Your task to perform on an android device: Go to Yahoo.com Image 0: 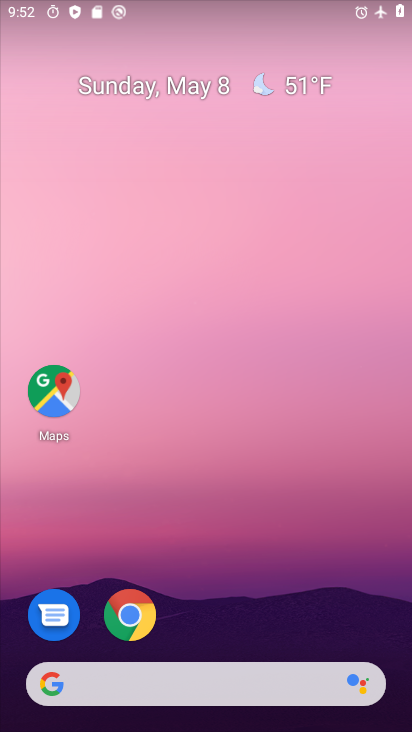
Step 0: click (130, 609)
Your task to perform on an android device: Go to Yahoo.com Image 1: 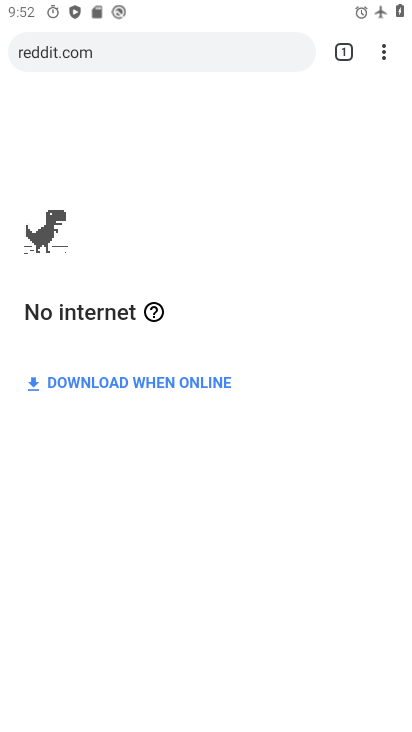
Step 1: task complete